Your task to perform on an android device: What is the recent news? Image 0: 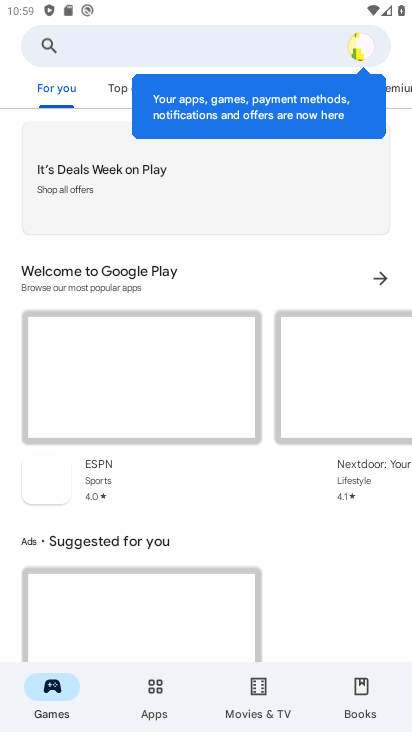
Step 0: press home button
Your task to perform on an android device: What is the recent news? Image 1: 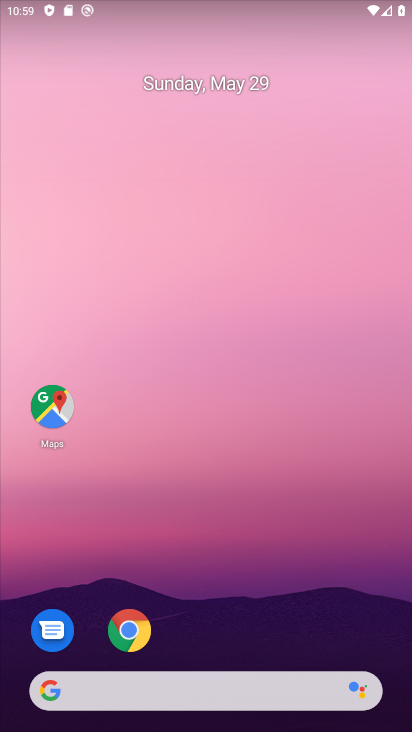
Step 1: click (209, 691)
Your task to perform on an android device: What is the recent news? Image 2: 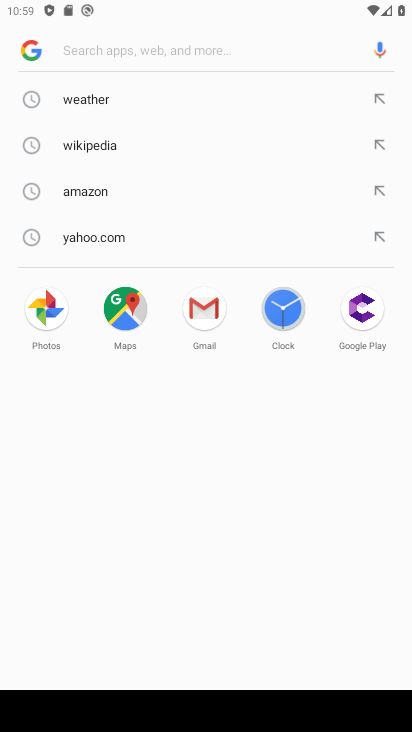
Step 2: type "recent news"
Your task to perform on an android device: What is the recent news? Image 3: 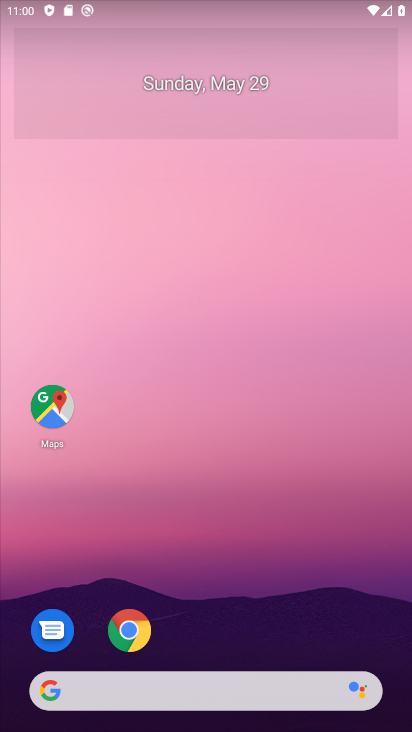
Step 3: click (216, 696)
Your task to perform on an android device: What is the recent news? Image 4: 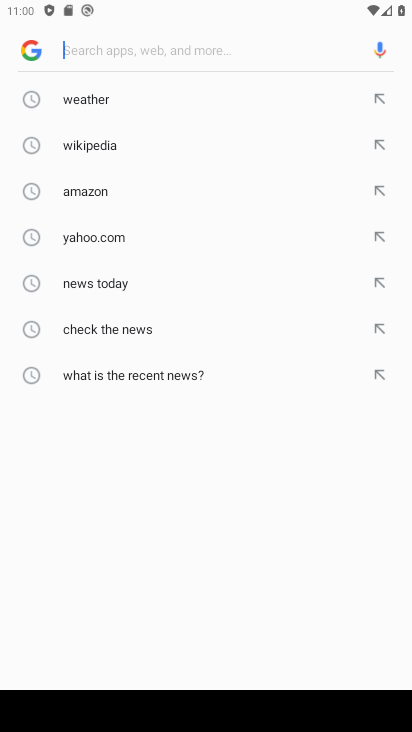
Step 4: type "recent news"
Your task to perform on an android device: What is the recent news? Image 5: 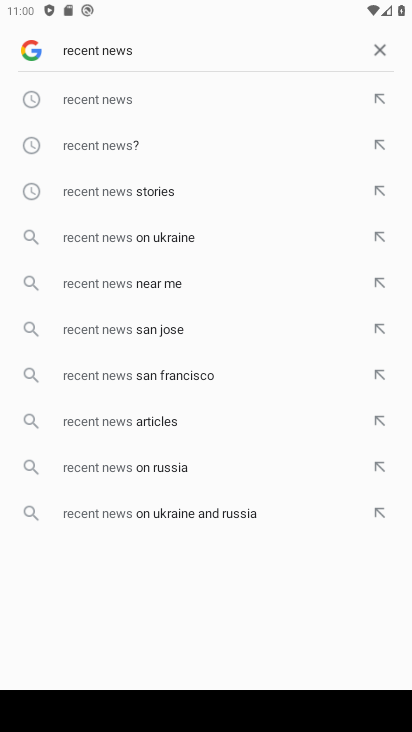
Step 5: click (185, 103)
Your task to perform on an android device: What is the recent news? Image 6: 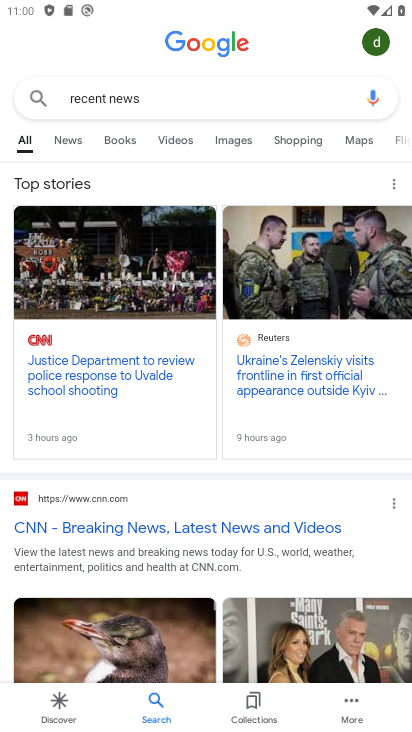
Step 6: task complete